Your task to perform on an android device: Go to CNN.com Image 0: 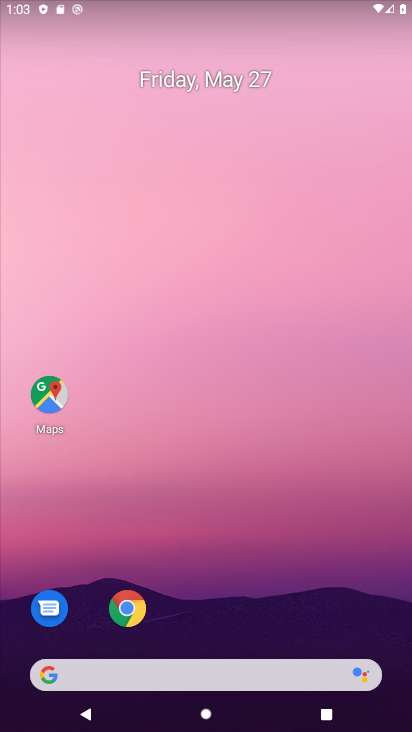
Step 0: press home button
Your task to perform on an android device: Go to CNN.com Image 1: 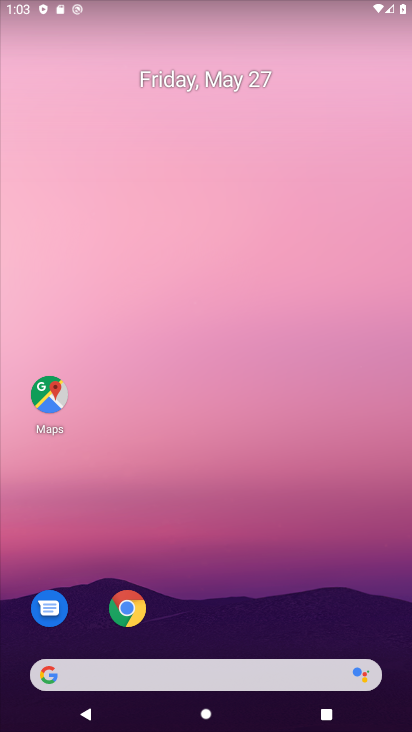
Step 1: click (131, 612)
Your task to perform on an android device: Go to CNN.com Image 2: 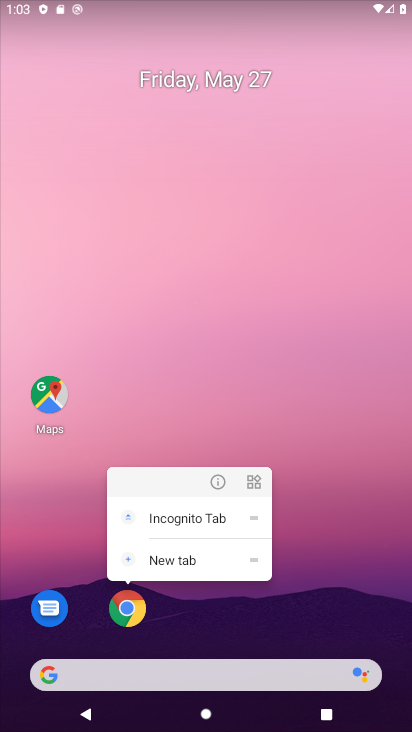
Step 2: click (130, 612)
Your task to perform on an android device: Go to CNN.com Image 3: 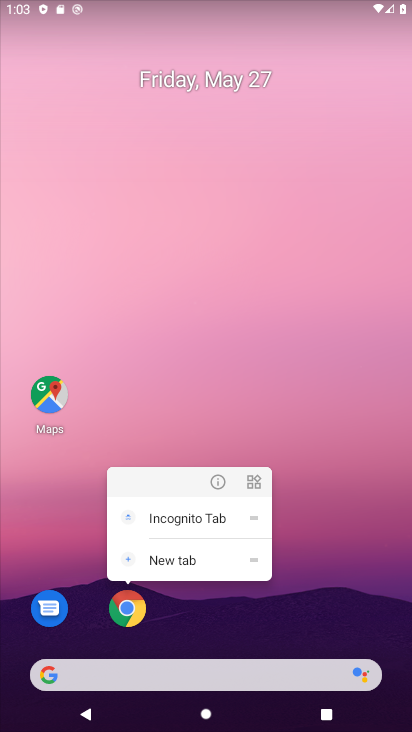
Step 3: click (138, 614)
Your task to perform on an android device: Go to CNN.com Image 4: 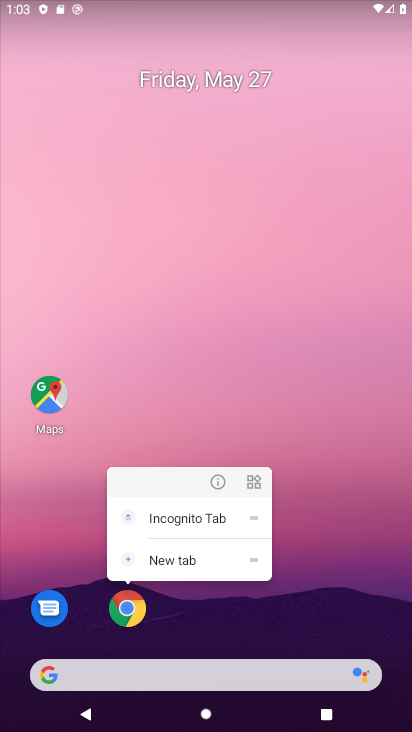
Step 4: click (134, 613)
Your task to perform on an android device: Go to CNN.com Image 5: 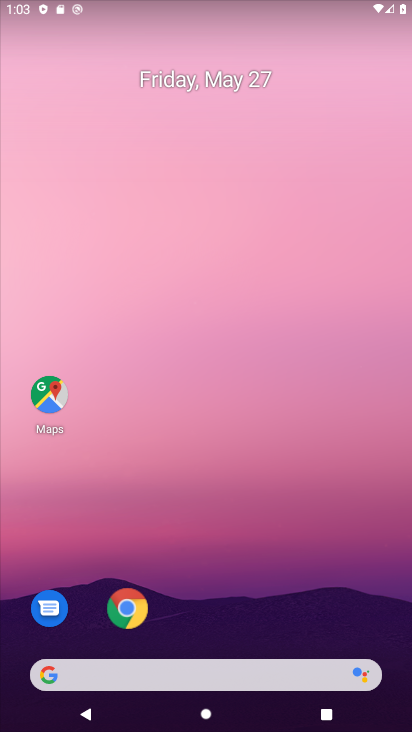
Step 5: click (134, 612)
Your task to perform on an android device: Go to CNN.com Image 6: 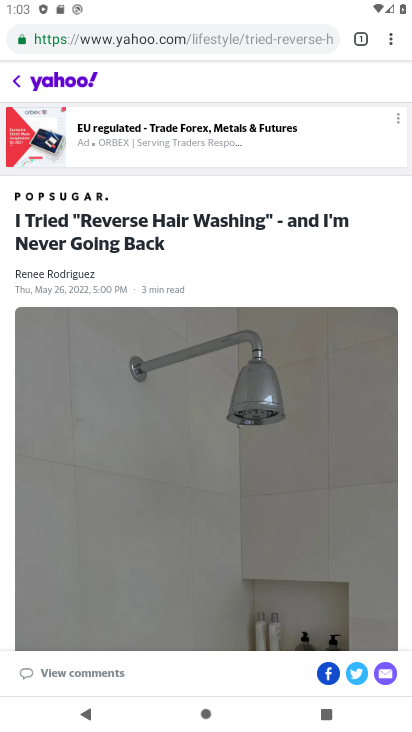
Step 6: drag from (387, 35) to (301, 87)
Your task to perform on an android device: Go to CNN.com Image 7: 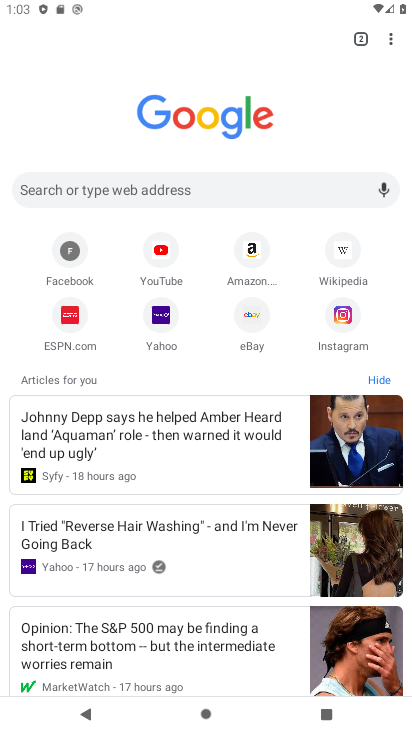
Step 7: click (147, 184)
Your task to perform on an android device: Go to CNN.com Image 8: 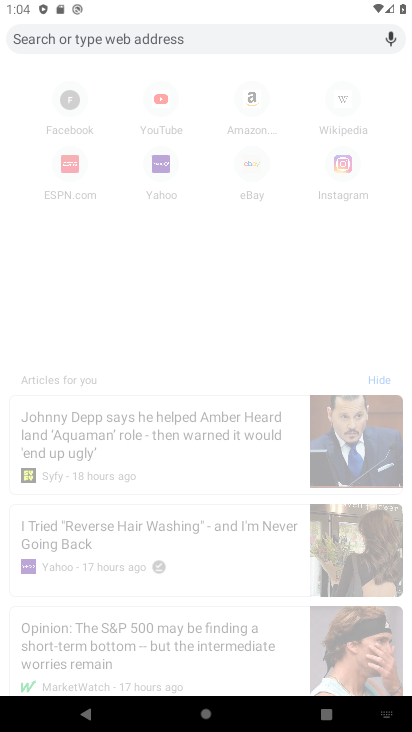
Step 8: type "cnn.com"
Your task to perform on an android device: Go to CNN.com Image 9: 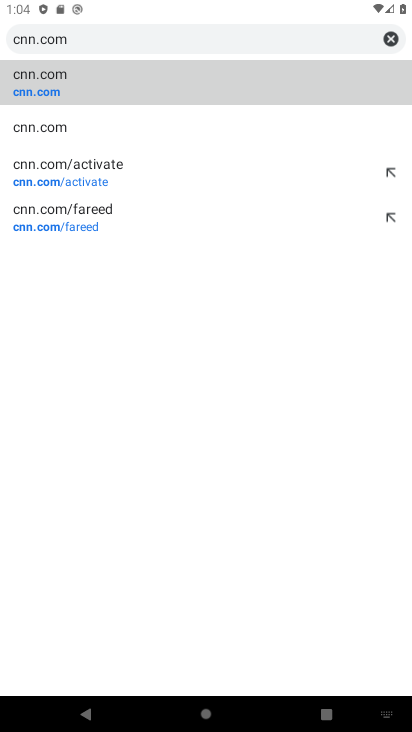
Step 9: click (199, 81)
Your task to perform on an android device: Go to CNN.com Image 10: 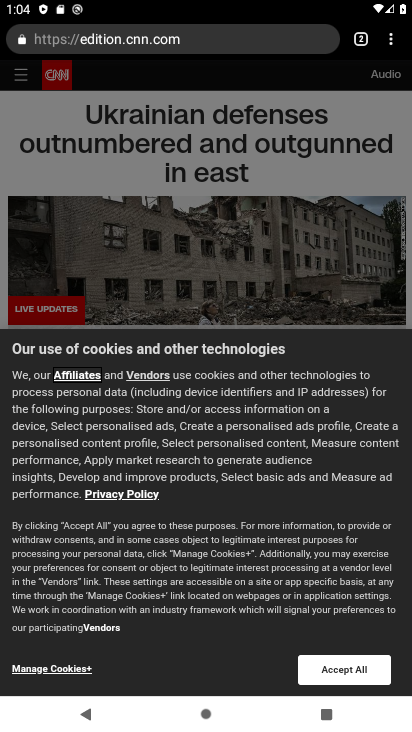
Step 10: task complete